Your task to perform on an android device: change your default location settings in chrome Image 0: 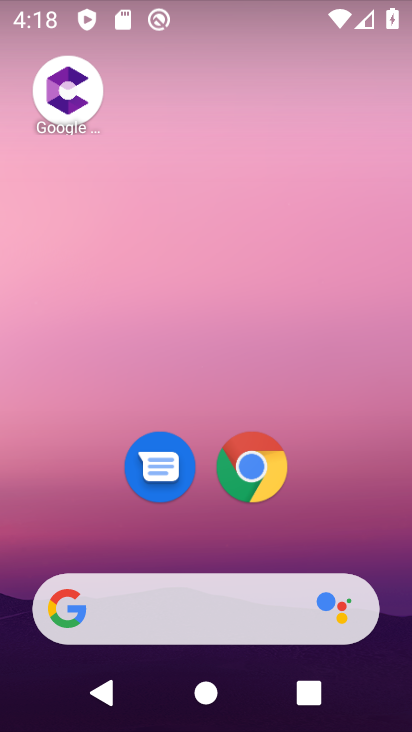
Step 0: click (255, 466)
Your task to perform on an android device: change your default location settings in chrome Image 1: 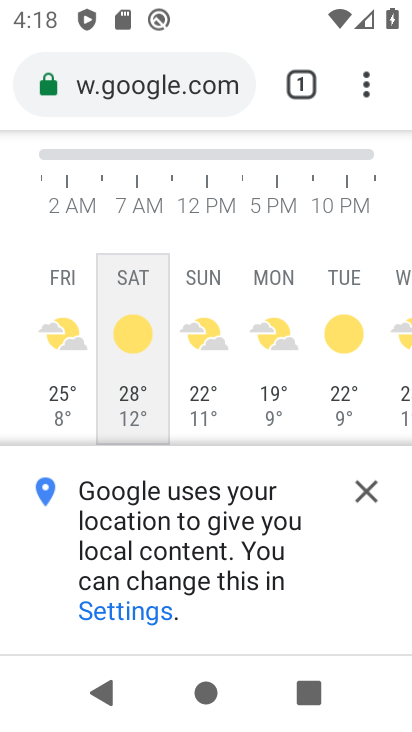
Step 1: drag from (380, 84) to (242, 523)
Your task to perform on an android device: change your default location settings in chrome Image 2: 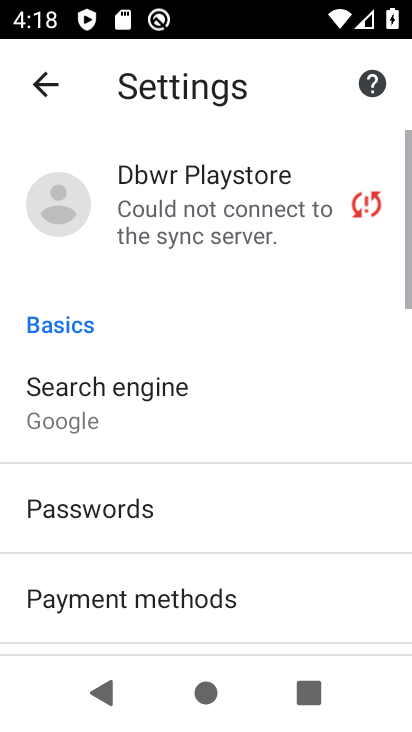
Step 2: click (170, 395)
Your task to perform on an android device: change your default location settings in chrome Image 3: 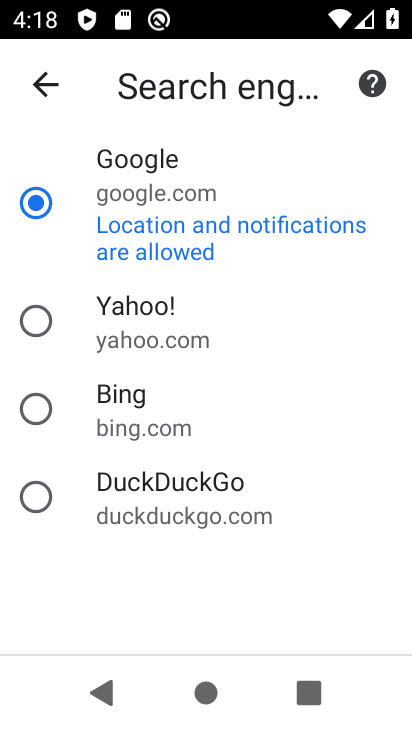
Step 3: click (65, 61)
Your task to perform on an android device: change your default location settings in chrome Image 4: 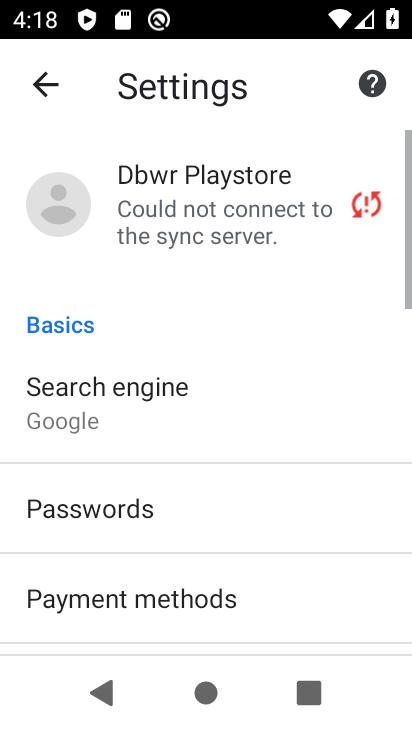
Step 4: drag from (280, 530) to (333, 44)
Your task to perform on an android device: change your default location settings in chrome Image 5: 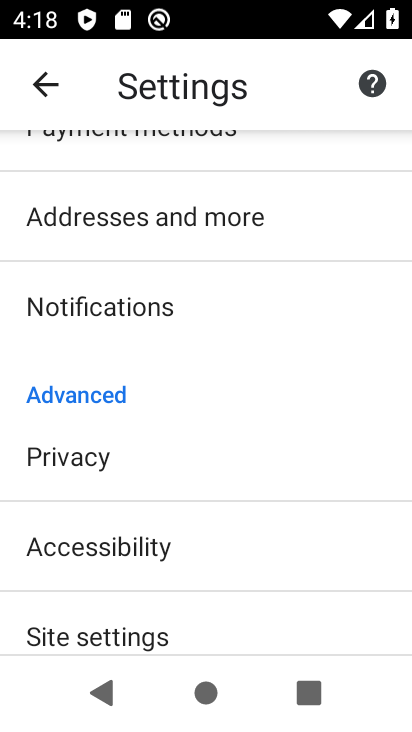
Step 5: drag from (231, 454) to (296, 188)
Your task to perform on an android device: change your default location settings in chrome Image 6: 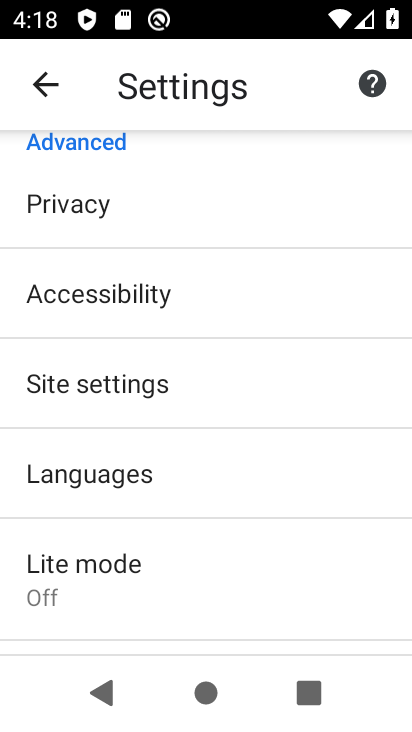
Step 6: click (123, 381)
Your task to perform on an android device: change your default location settings in chrome Image 7: 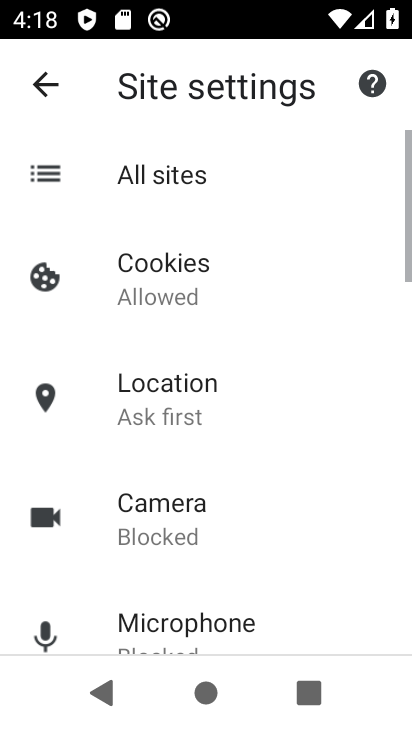
Step 7: click (161, 410)
Your task to perform on an android device: change your default location settings in chrome Image 8: 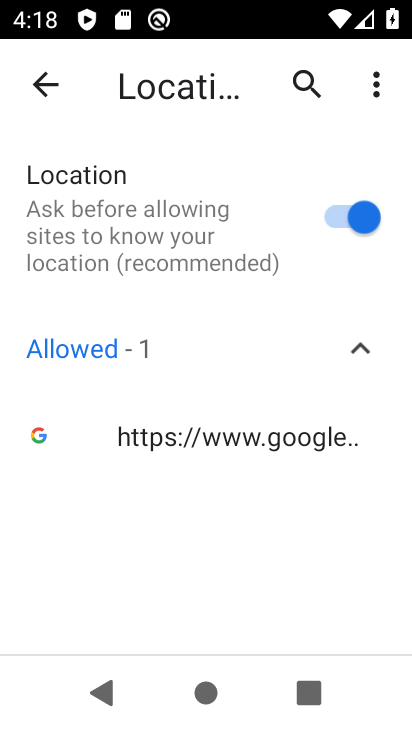
Step 8: click (342, 214)
Your task to perform on an android device: change your default location settings in chrome Image 9: 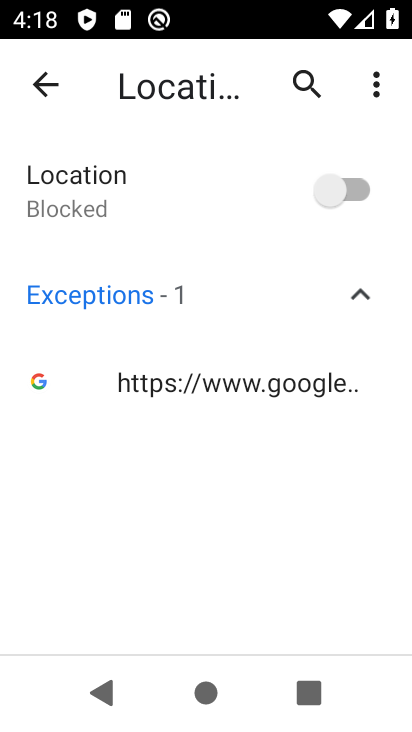
Step 9: task complete